Your task to perform on an android device: turn on bluetooth scan Image 0: 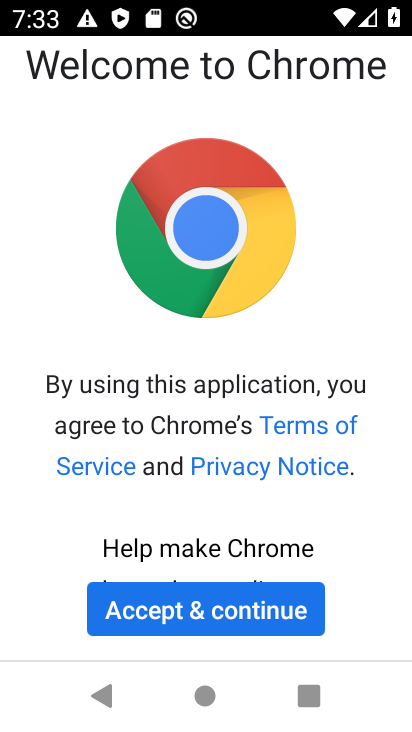
Step 0: press home button
Your task to perform on an android device: turn on bluetooth scan Image 1: 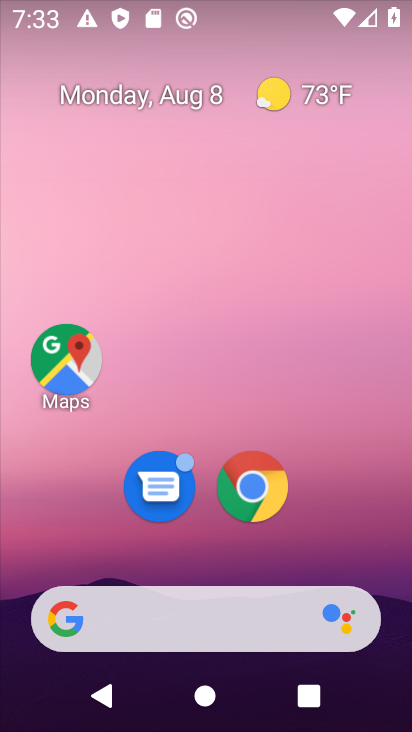
Step 1: drag from (225, 568) to (311, 37)
Your task to perform on an android device: turn on bluetooth scan Image 2: 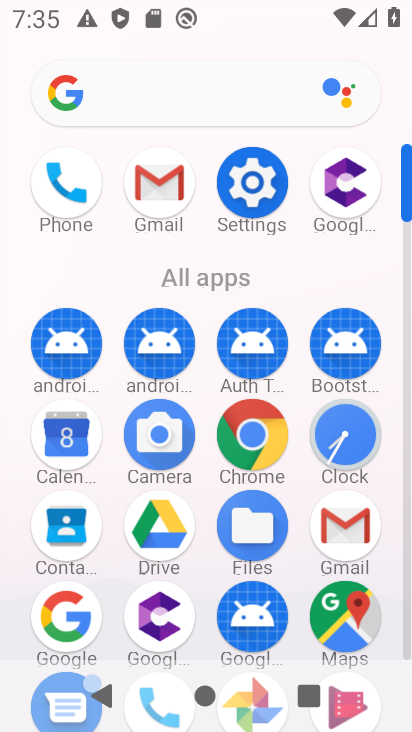
Step 2: click (250, 180)
Your task to perform on an android device: turn on bluetooth scan Image 3: 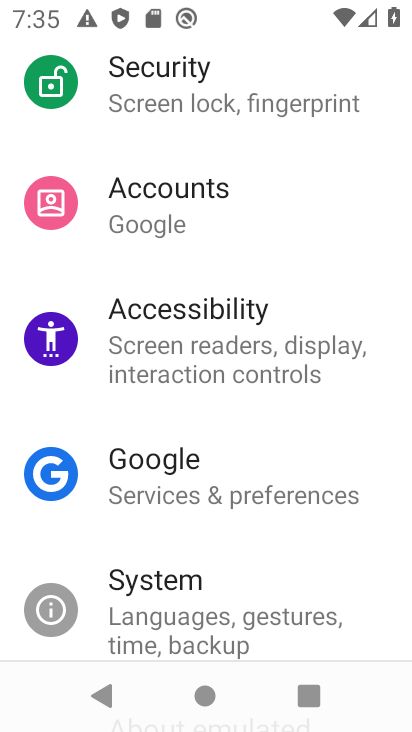
Step 3: drag from (116, 531) to (99, 268)
Your task to perform on an android device: turn on bluetooth scan Image 4: 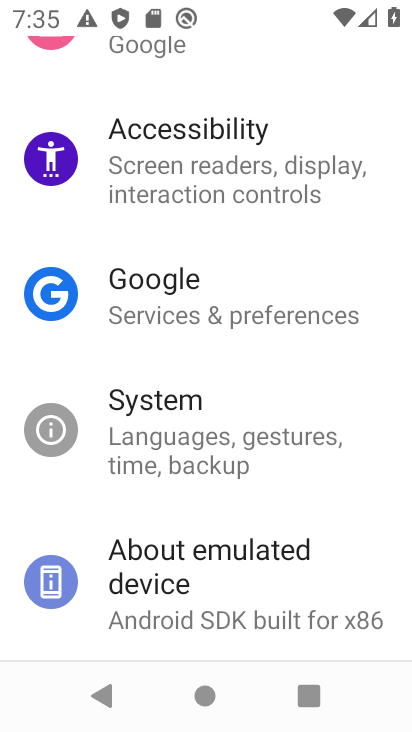
Step 4: drag from (159, 508) to (134, 163)
Your task to perform on an android device: turn on bluetooth scan Image 5: 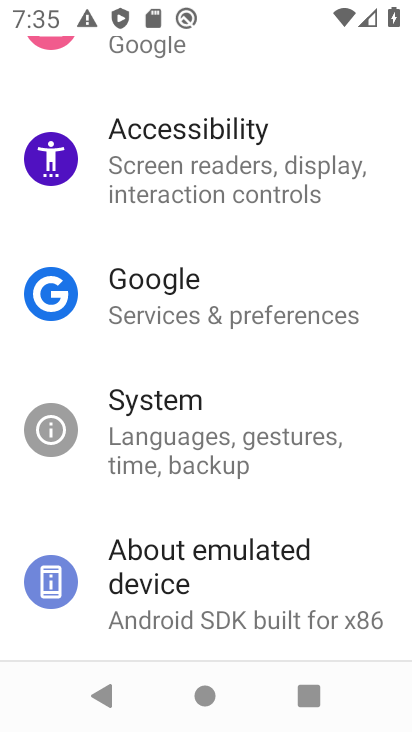
Step 5: drag from (113, 208) to (145, 513)
Your task to perform on an android device: turn on bluetooth scan Image 6: 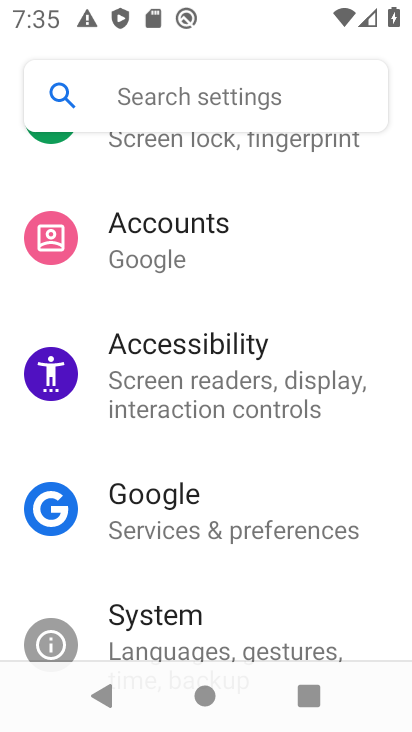
Step 6: drag from (210, 174) to (217, 577)
Your task to perform on an android device: turn on bluetooth scan Image 7: 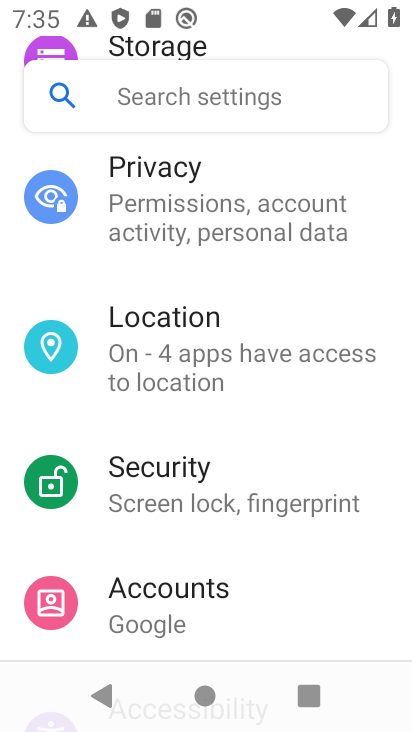
Step 7: click (207, 330)
Your task to perform on an android device: turn on bluetooth scan Image 8: 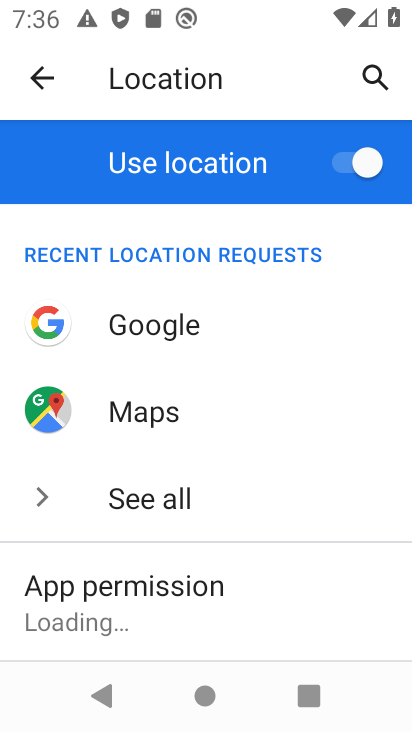
Step 8: drag from (180, 622) to (229, 166)
Your task to perform on an android device: turn on bluetooth scan Image 9: 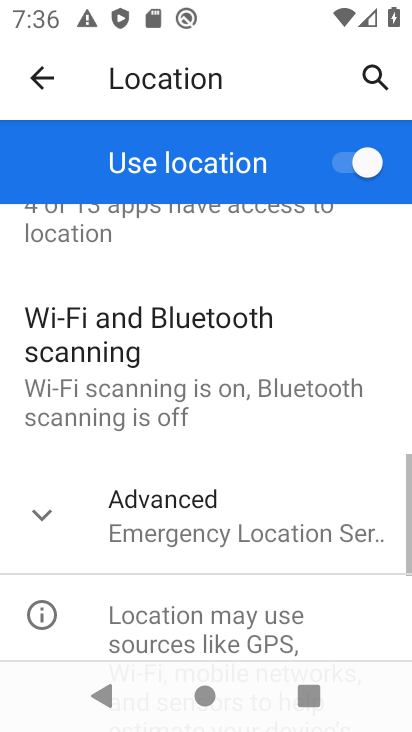
Step 9: click (150, 298)
Your task to perform on an android device: turn on bluetooth scan Image 10: 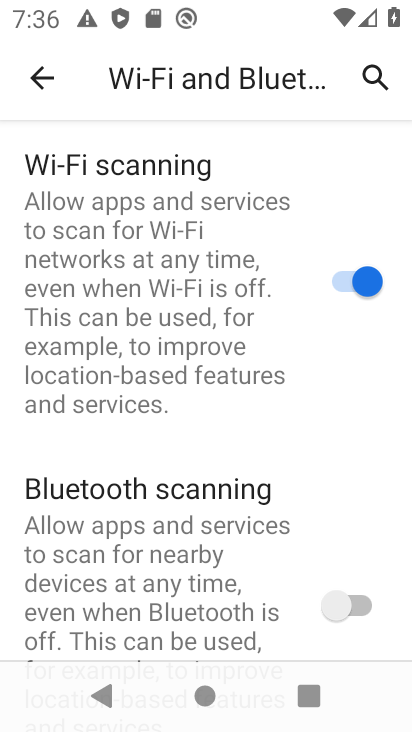
Step 10: click (327, 594)
Your task to perform on an android device: turn on bluetooth scan Image 11: 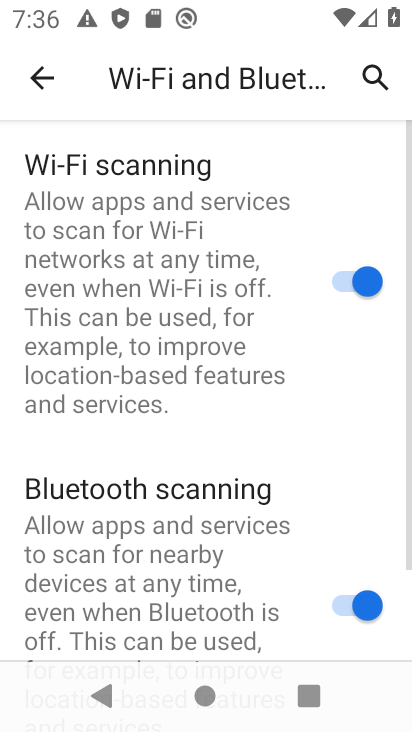
Step 11: task complete